Your task to perform on an android device: visit the assistant section in the google photos Image 0: 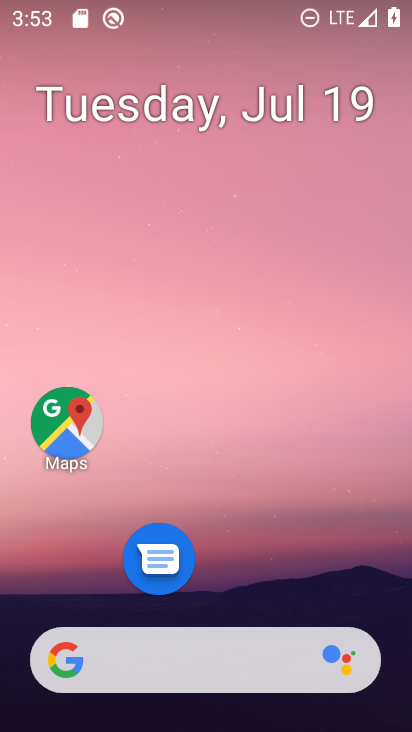
Step 0: drag from (233, 613) to (250, 114)
Your task to perform on an android device: visit the assistant section in the google photos Image 1: 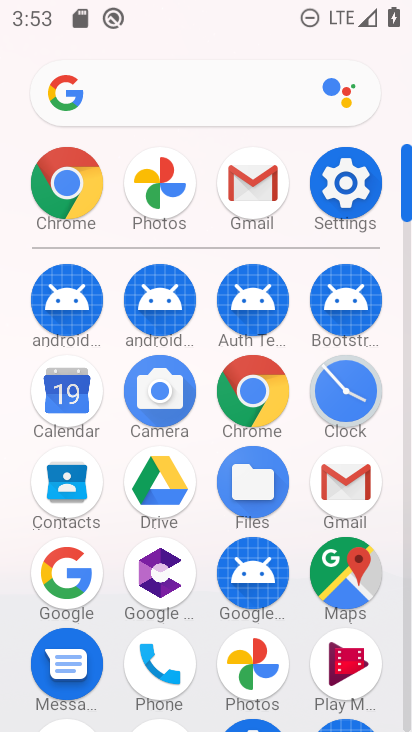
Step 1: click (267, 663)
Your task to perform on an android device: visit the assistant section in the google photos Image 2: 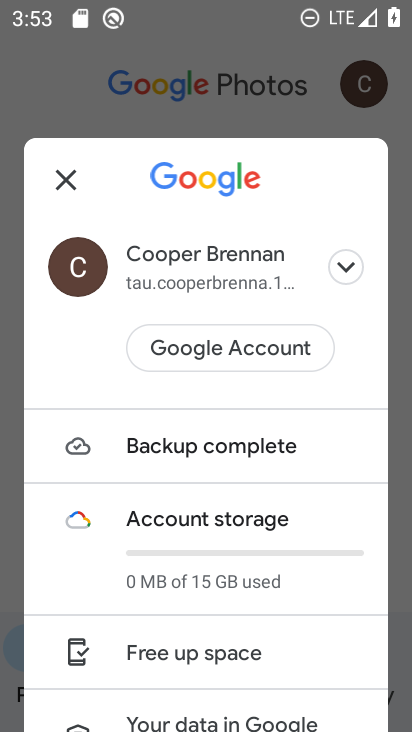
Step 2: click (59, 187)
Your task to perform on an android device: visit the assistant section in the google photos Image 3: 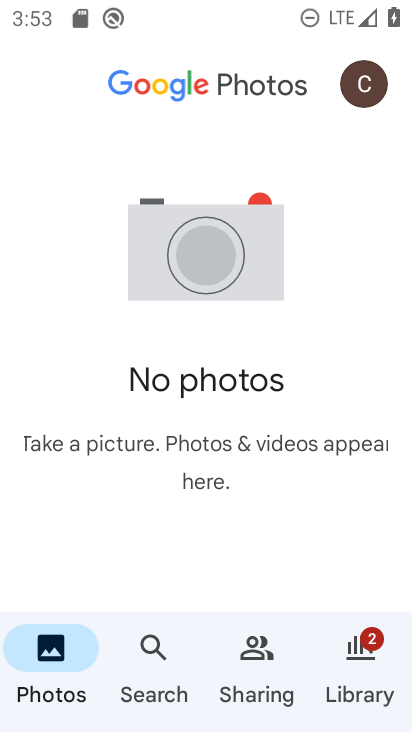
Step 3: task complete